Your task to perform on an android device: Go to display settings Image 0: 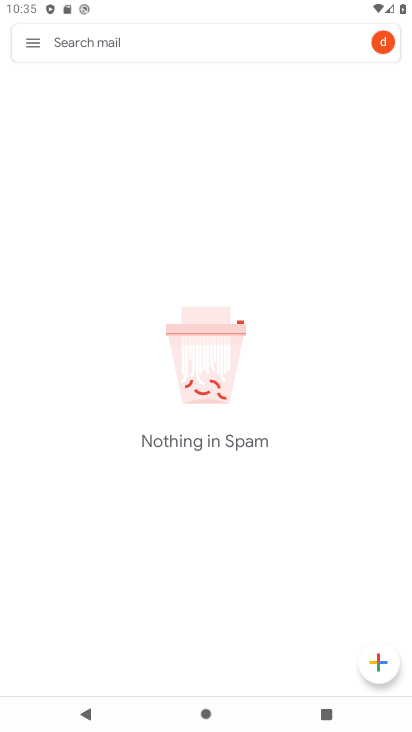
Step 0: press home button
Your task to perform on an android device: Go to display settings Image 1: 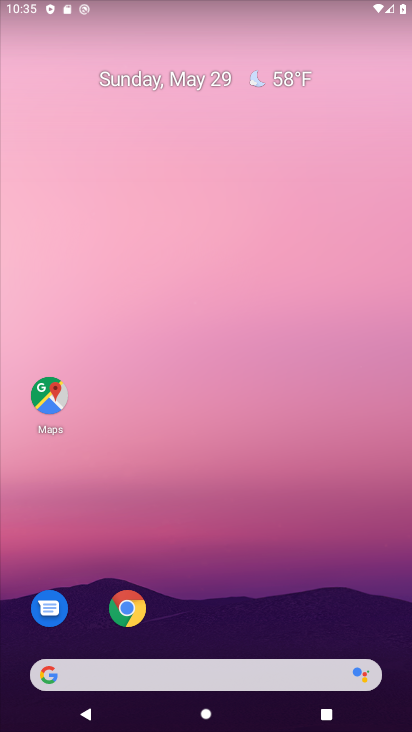
Step 1: drag from (231, 656) to (232, 315)
Your task to perform on an android device: Go to display settings Image 2: 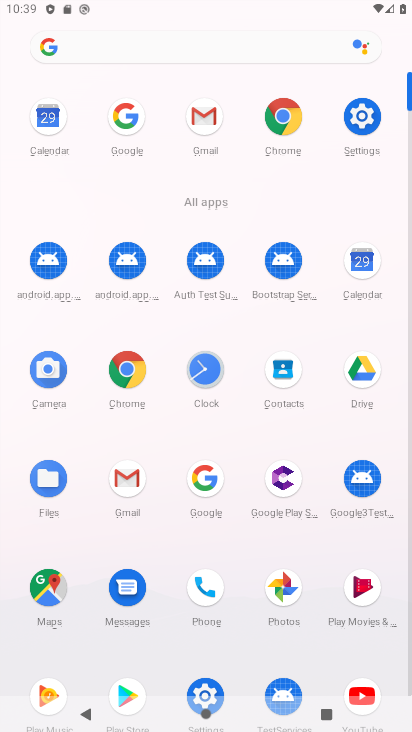
Step 2: click (362, 119)
Your task to perform on an android device: Go to display settings Image 3: 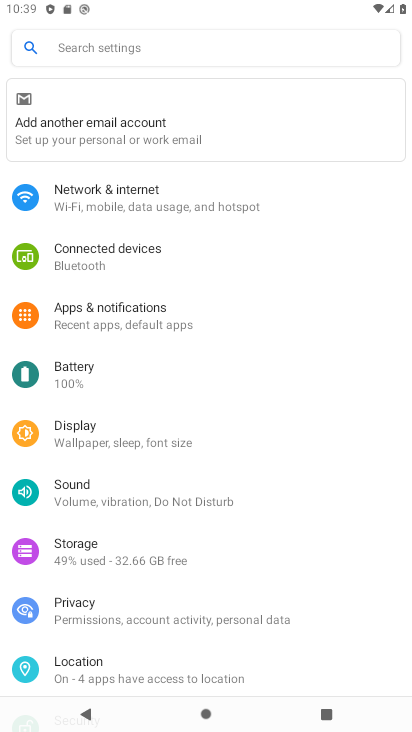
Step 3: click (97, 447)
Your task to perform on an android device: Go to display settings Image 4: 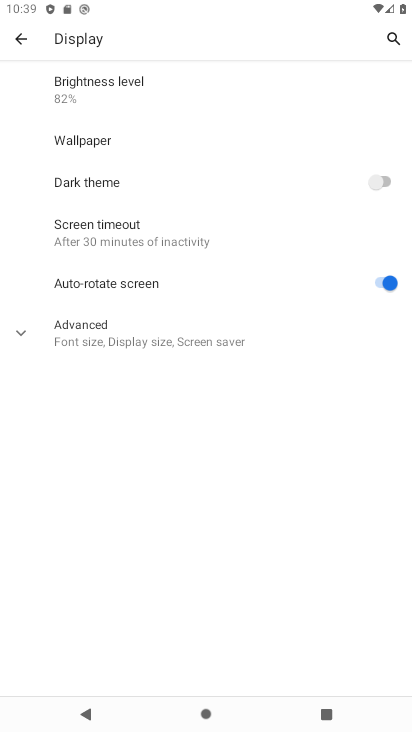
Step 4: click (97, 336)
Your task to perform on an android device: Go to display settings Image 5: 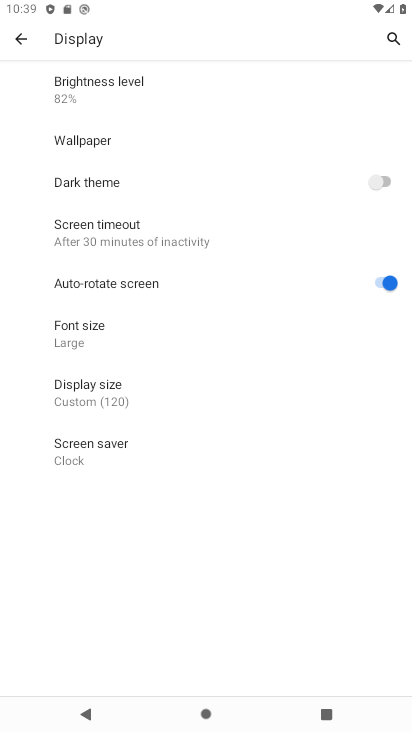
Step 5: task complete